Your task to perform on an android device: Clear all items from cart on amazon. Search for "dell xps" on amazon, select the first entry, add it to the cart, then select checkout. Image 0: 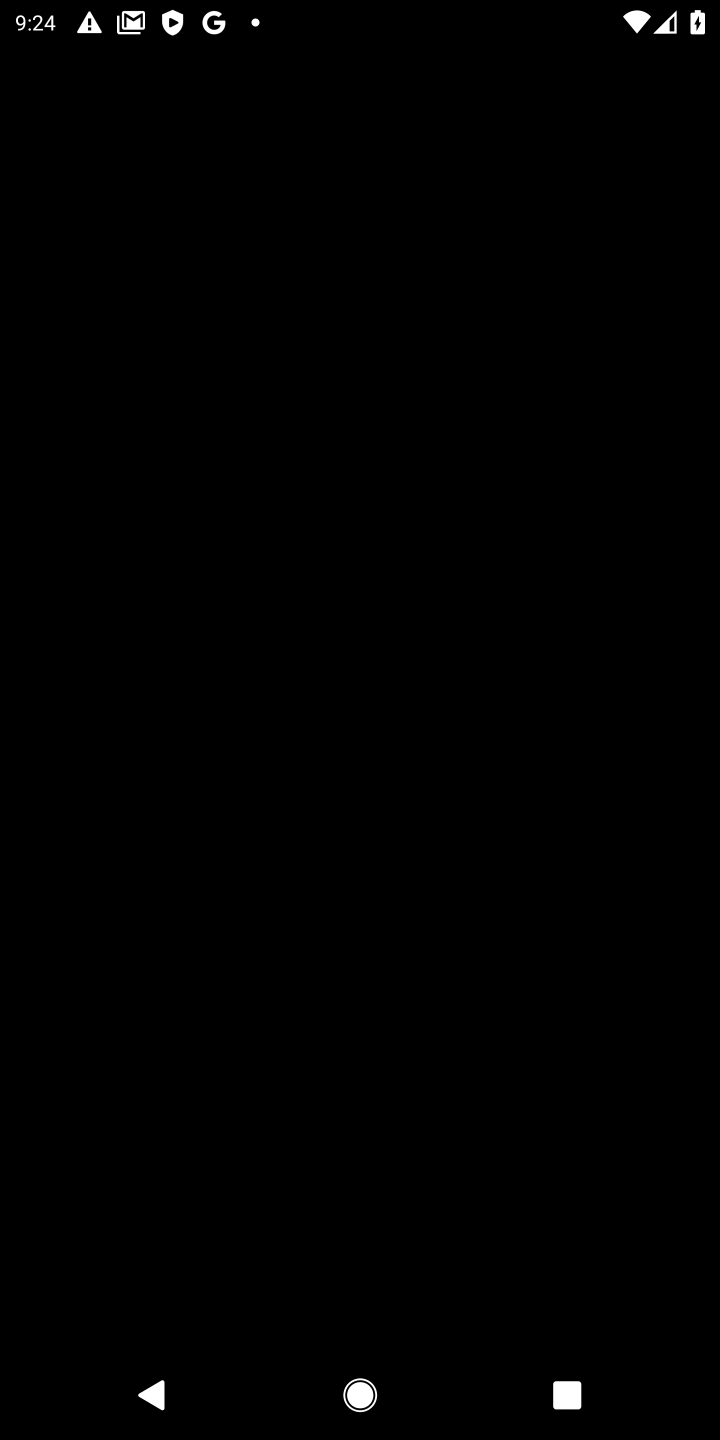
Step 0: press home button
Your task to perform on an android device: Clear all items from cart on amazon. Search for "dell xps" on amazon, select the first entry, add it to the cart, then select checkout. Image 1: 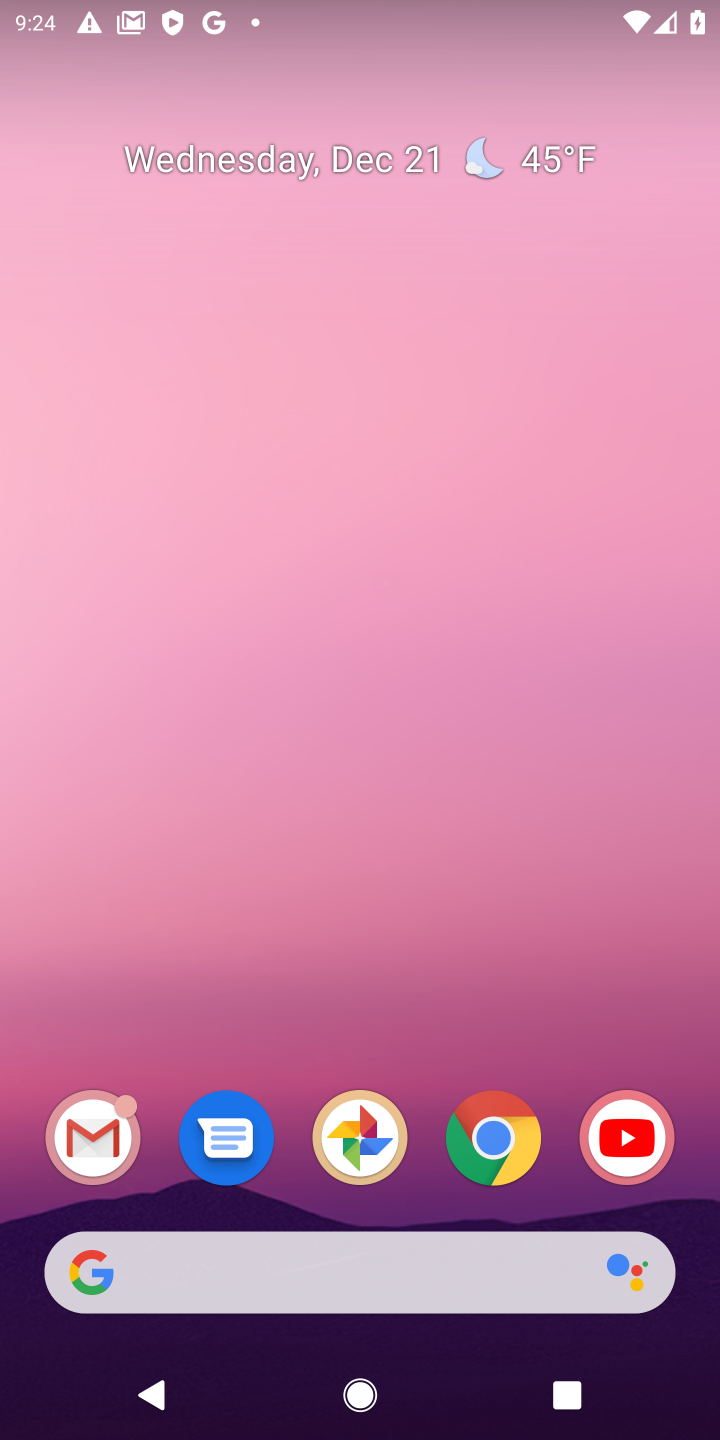
Step 1: click (490, 1136)
Your task to perform on an android device: Clear all items from cart on amazon. Search for "dell xps" on amazon, select the first entry, add it to the cart, then select checkout. Image 2: 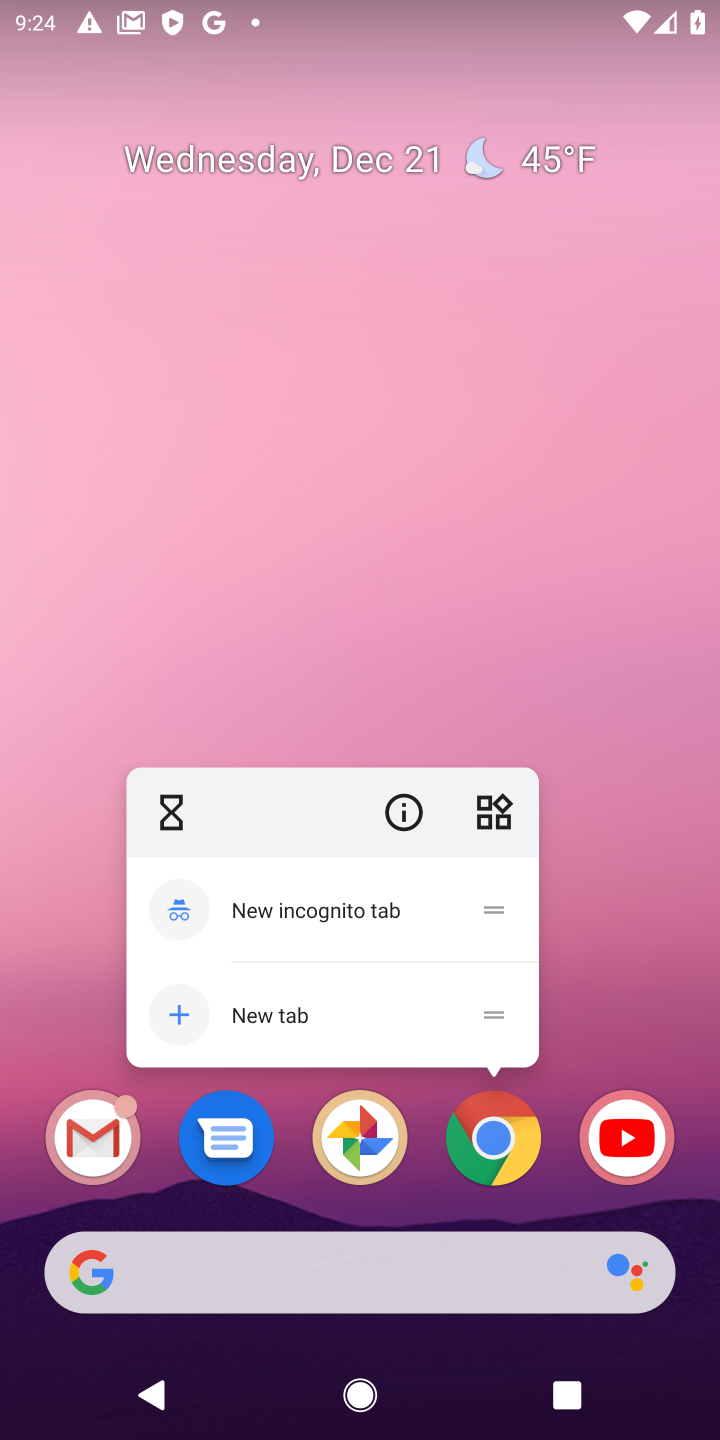
Step 2: click (490, 1136)
Your task to perform on an android device: Clear all items from cart on amazon. Search for "dell xps" on amazon, select the first entry, add it to the cart, then select checkout. Image 3: 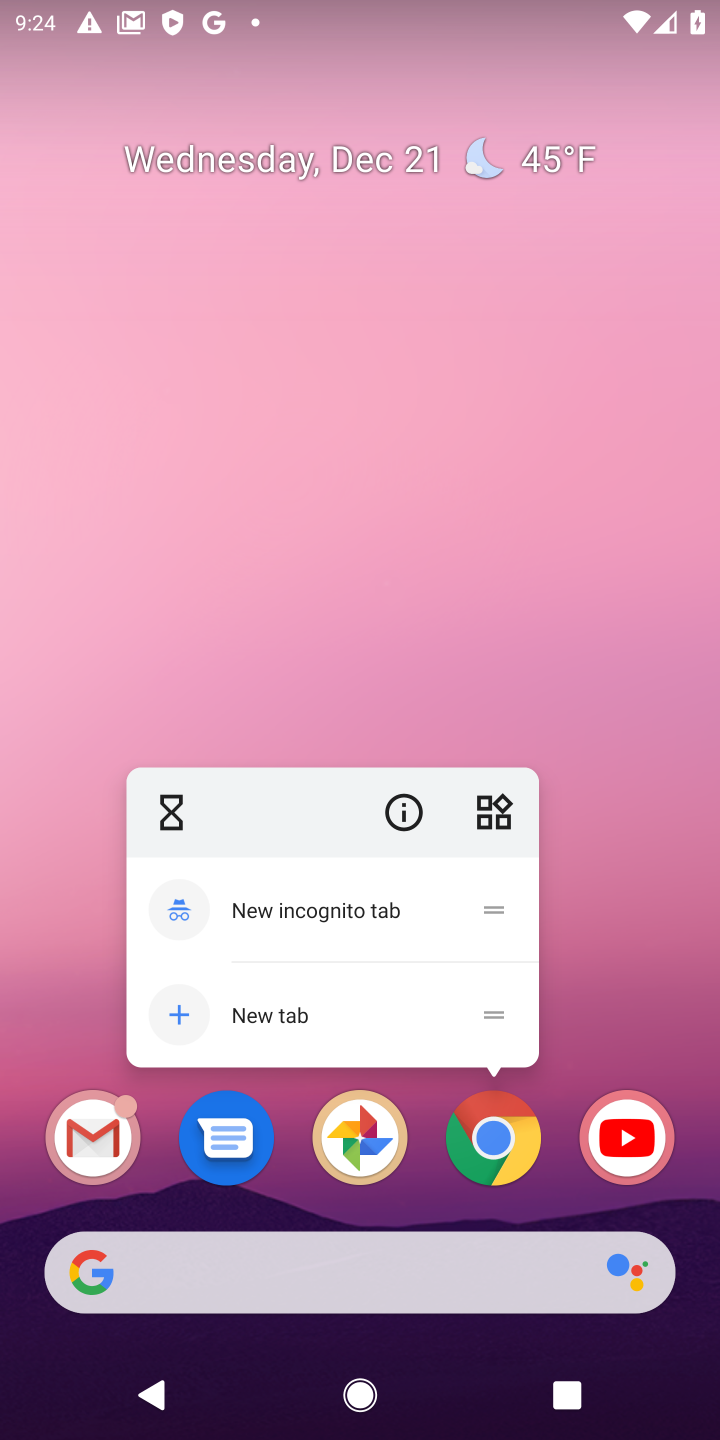
Step 3: click (490, 1136)
Your task to perform on an android device: Clear all items from cart on amazon. Search for "dell xps" on amazon, select the first entry, add it to the cart, then select checkout. Image 4: 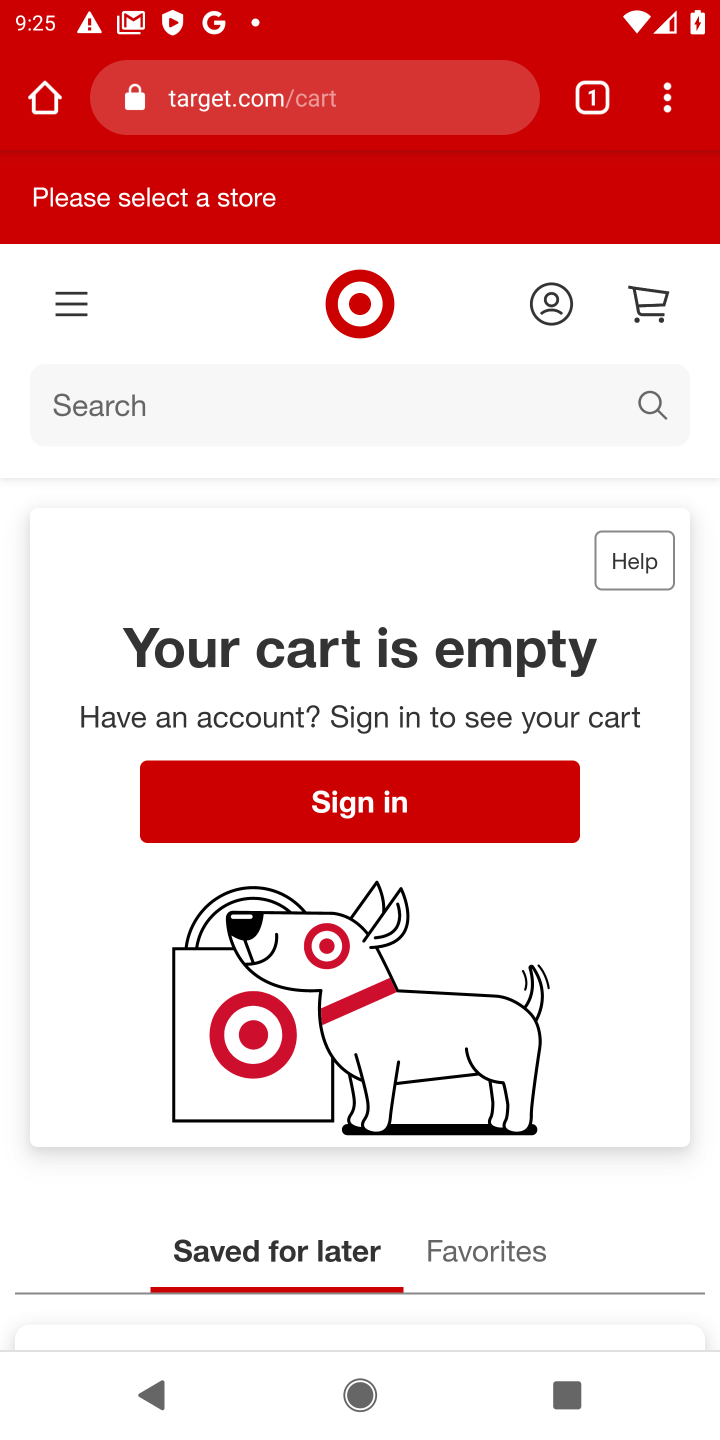
Step 4: click (203, 102)
Your task to perform on an android device: Clear all items from cart on amazon. Search for "dell xps" on amazon, select the first entry, add it to the cart, then select checkout. Image 5: 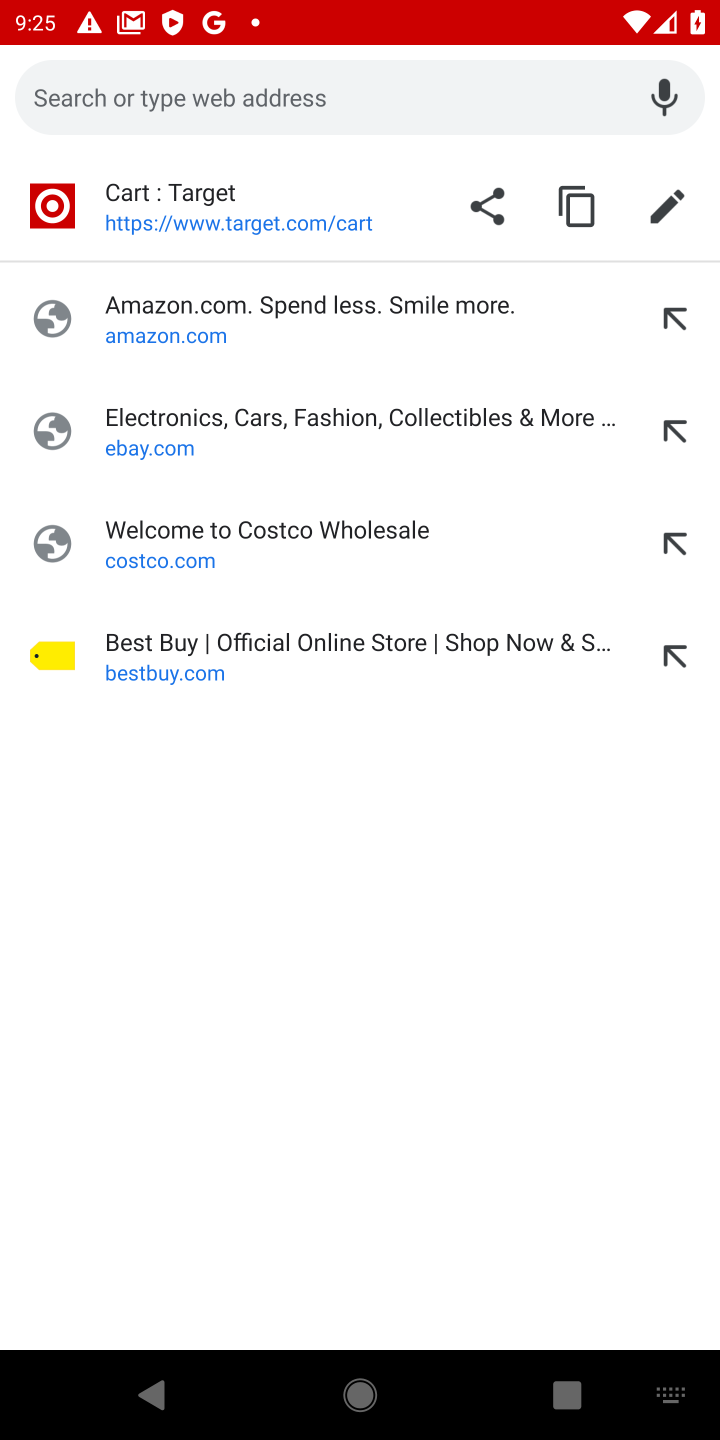
Step 5: click (141, 352)
Your task to perform on an android device: Clear all items from cart on amazon. Search for "dell xps" on amazon, select the first entry, add it to the cart, then select checkout. Image 6: 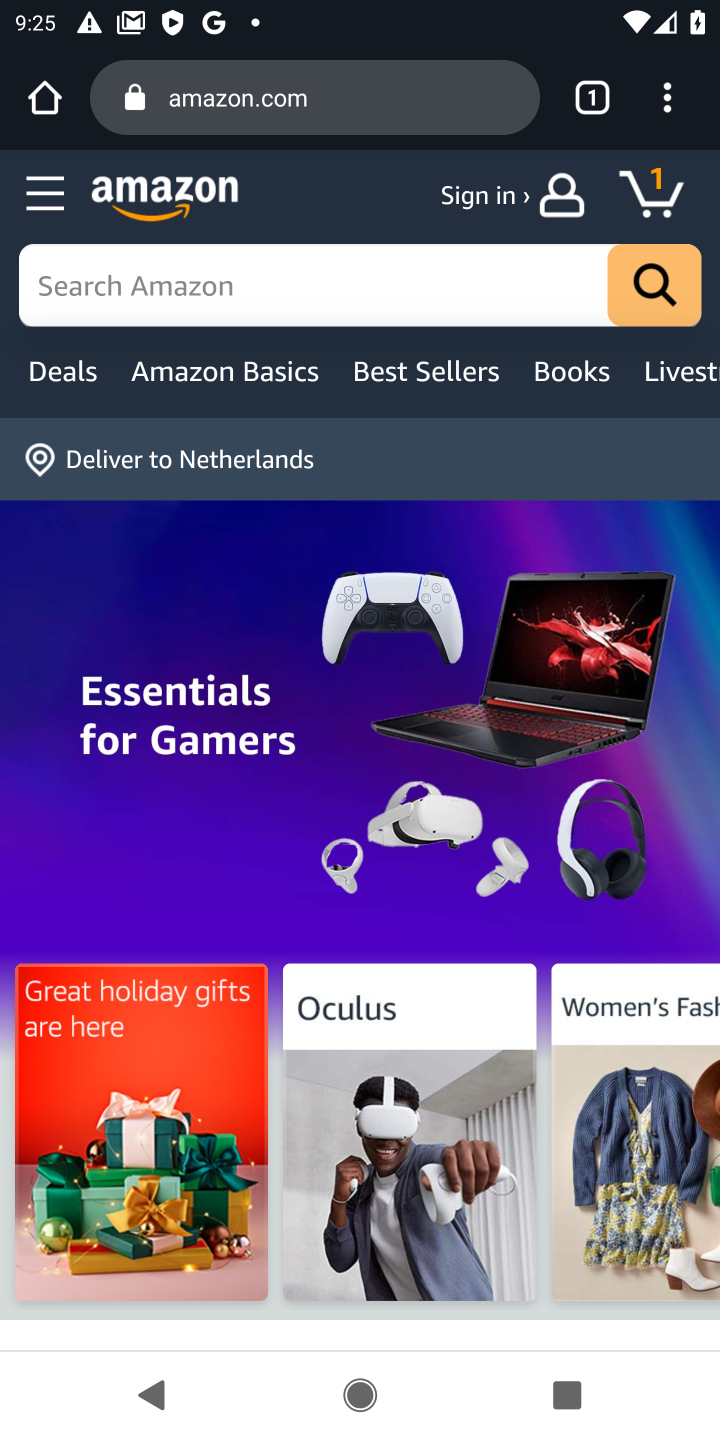
Step 6: click (650, 201)
Your task to perform on an android device: Clear all items from cart on amazon. Search for "dell xps" on amazon, select the first entry, add it to the cart, then select checkout. Image 7: 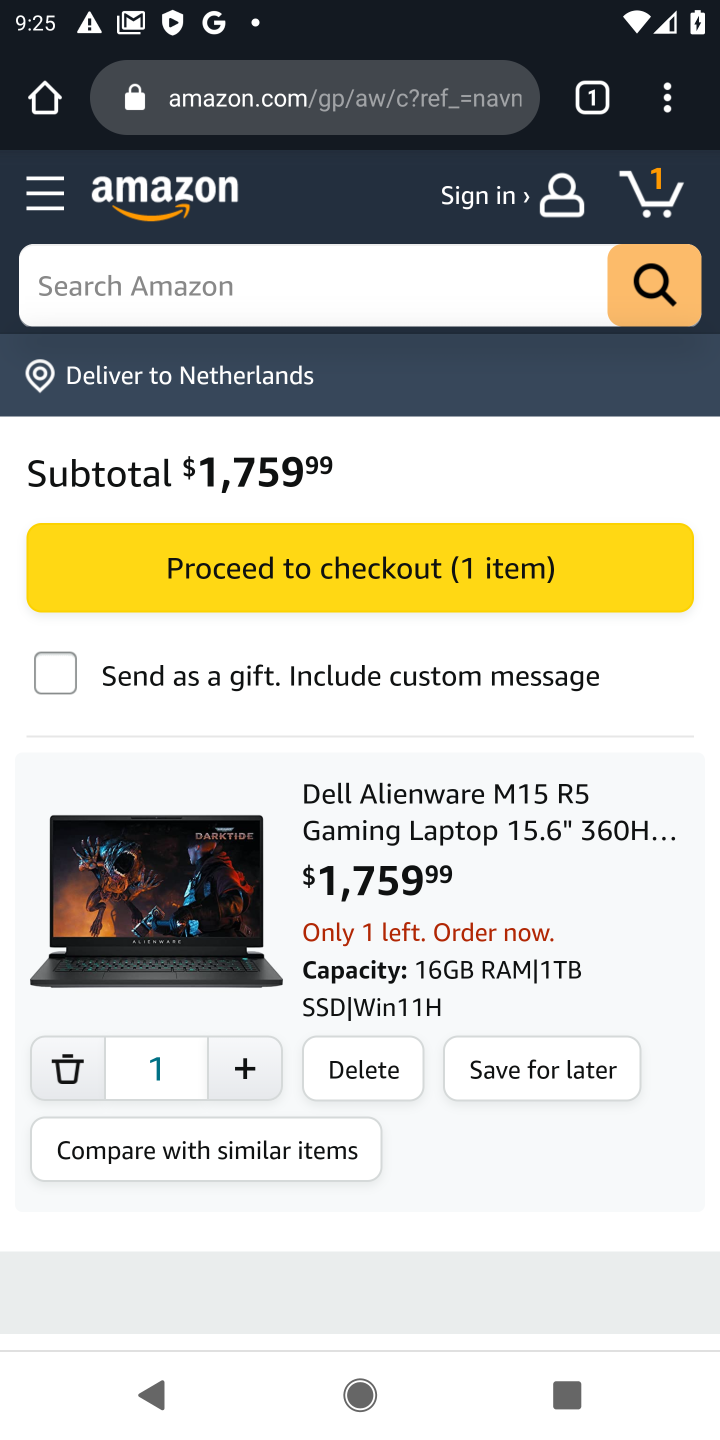
Step 7: click (366, 1084)
Your task to perform on an android device: Clear all items from cart on amazon. Search for "dell xps" on amazon, select the first entry, add it to the cart, then select checkout. Image 8: 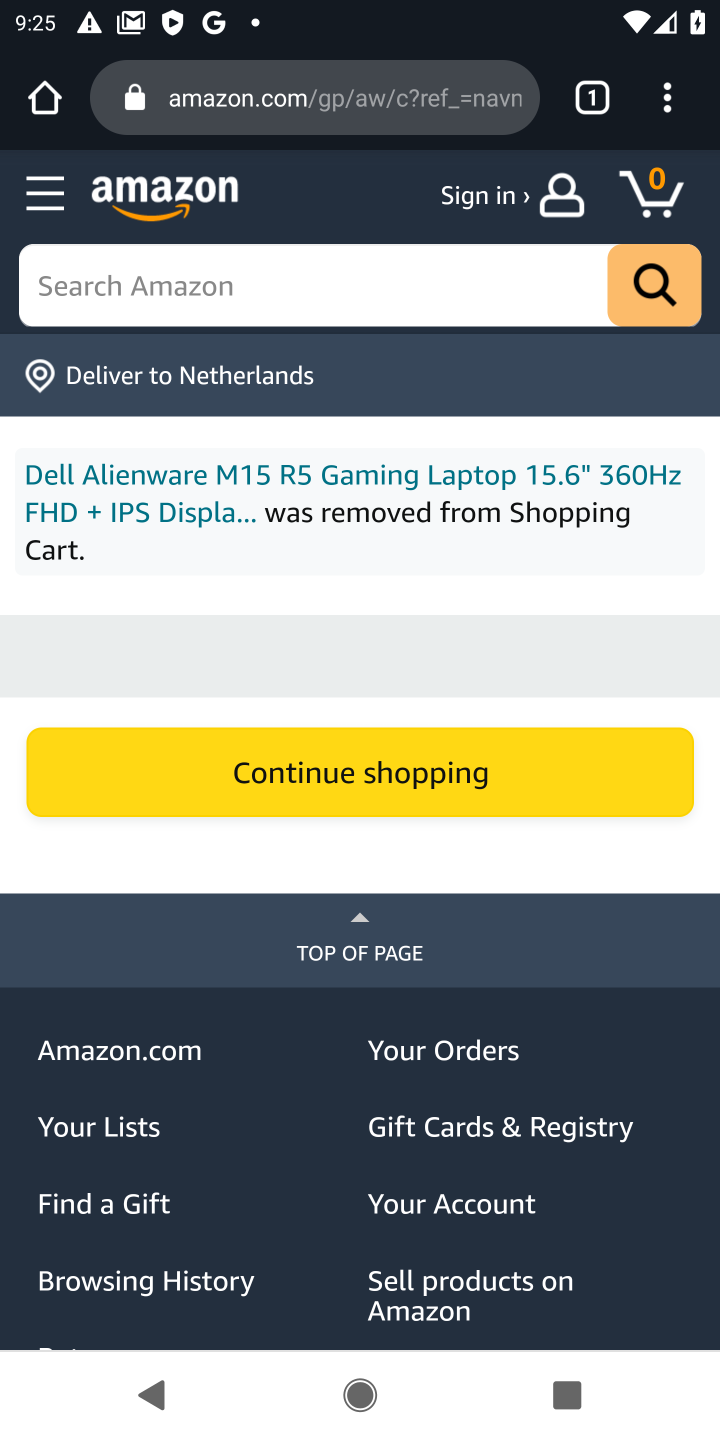
Step 8: click (201, 279)
Your task to perform on an android device: Clear all items from cart on amazon. Search for "dell xps" on amazon, select the first entry, add it to the cart, then select checkout. Image 9: 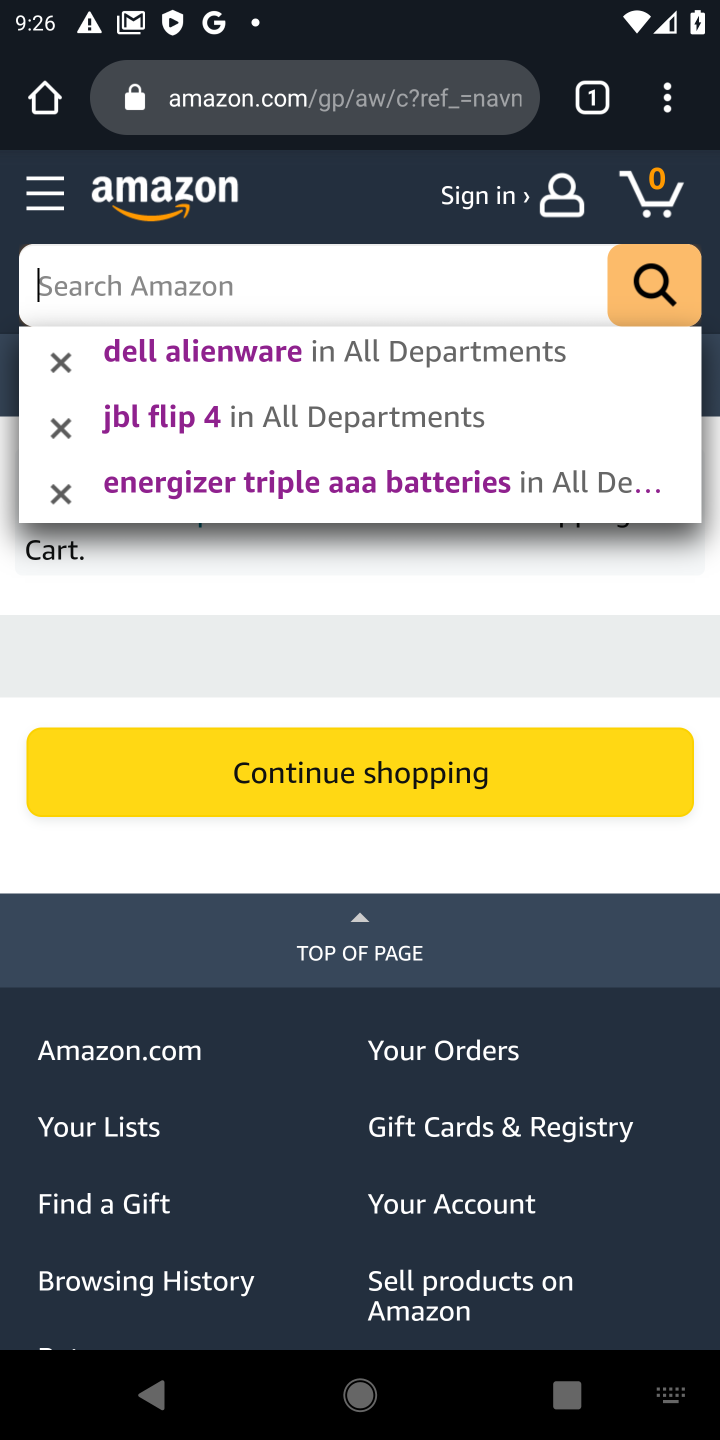
Step 9: type "dell xps"
Your task to perform on an android device: Clear all items from cart on amazon. Search for "dell xps" on amazon, select the first entry, add it to the cart, then select checkout. Image 10: 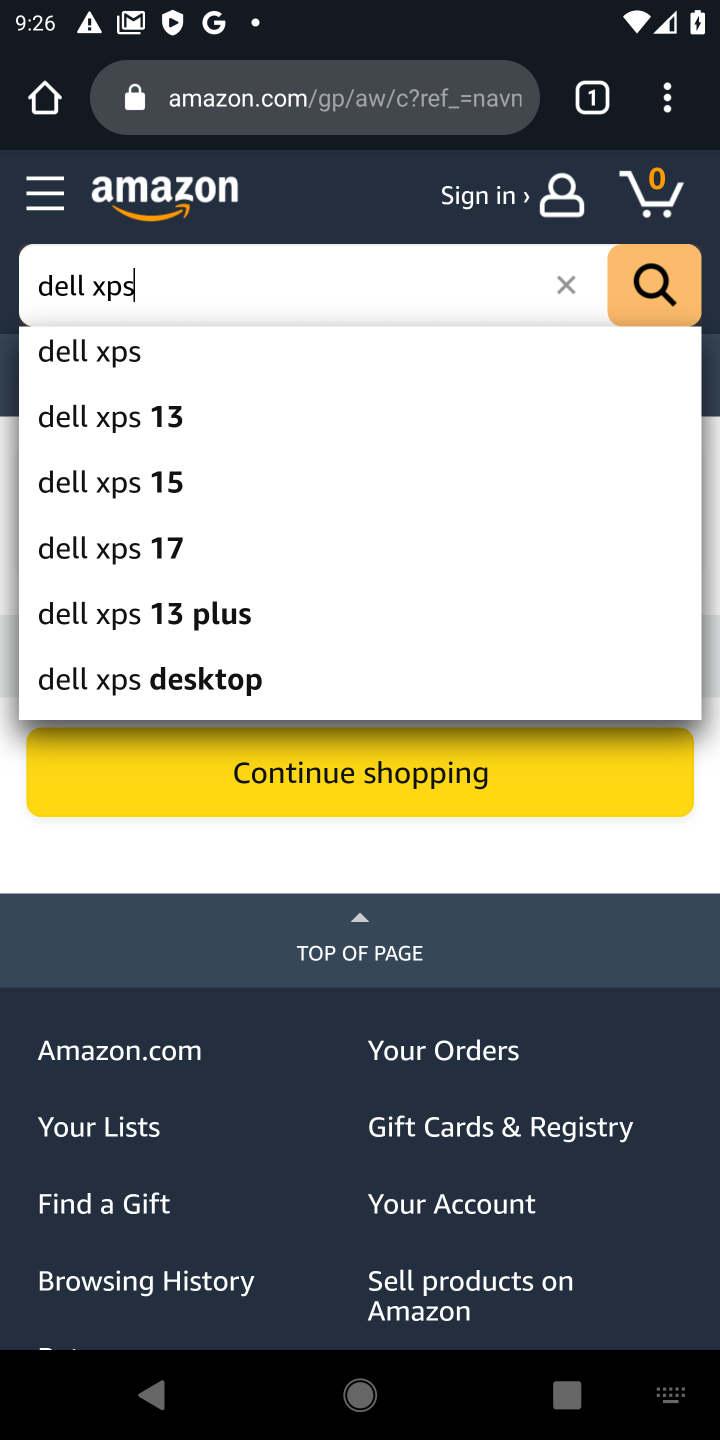
Step 10: click (76, 354)
Your task to perform on an android device: Clear all items from cart on amazon. Search for "dell xps" on amazon, select the first entry, add it to the cart, then select checkout. Image 11: 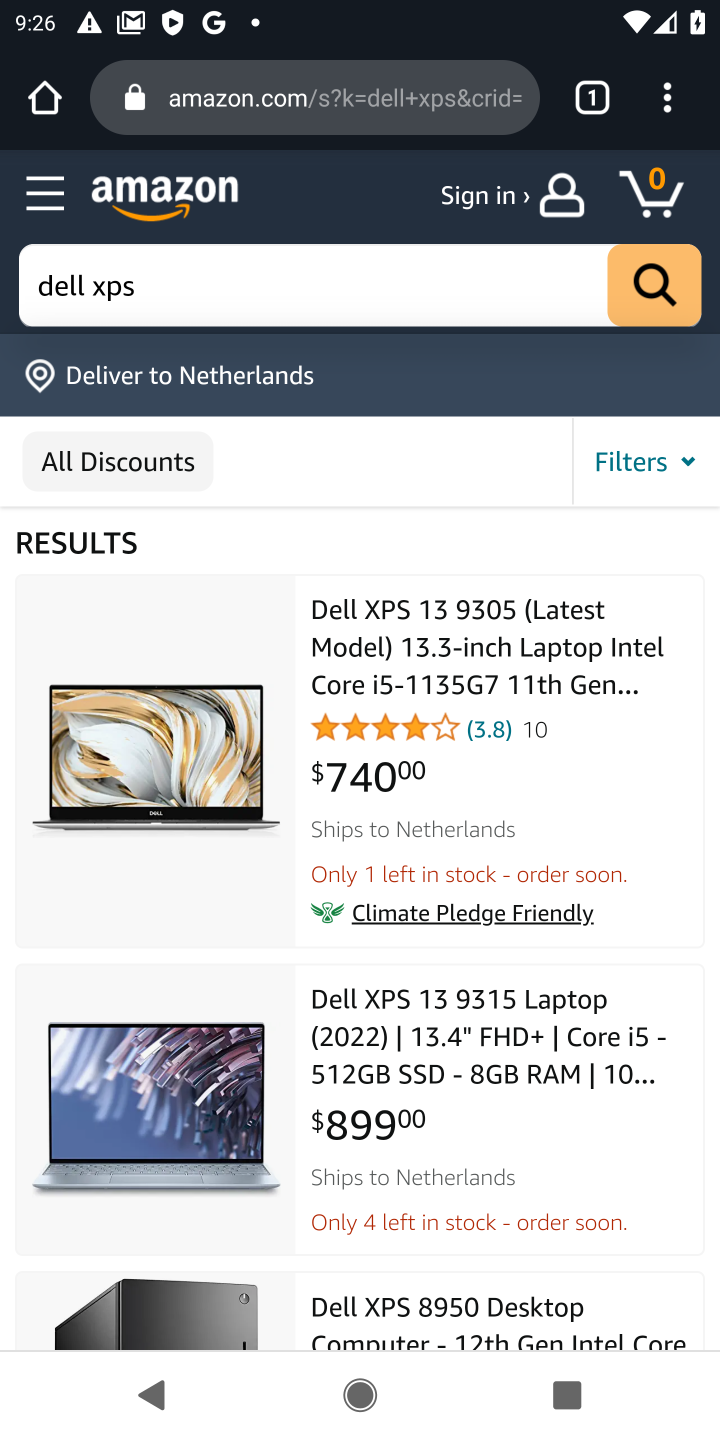
Step 11: click (421, 655)
Your task to perform on an android device: Clear all items from cart on amazon. Search for "dell xps" on amazon, select the first entry, add it to the cart, then select checkout. Image 12: 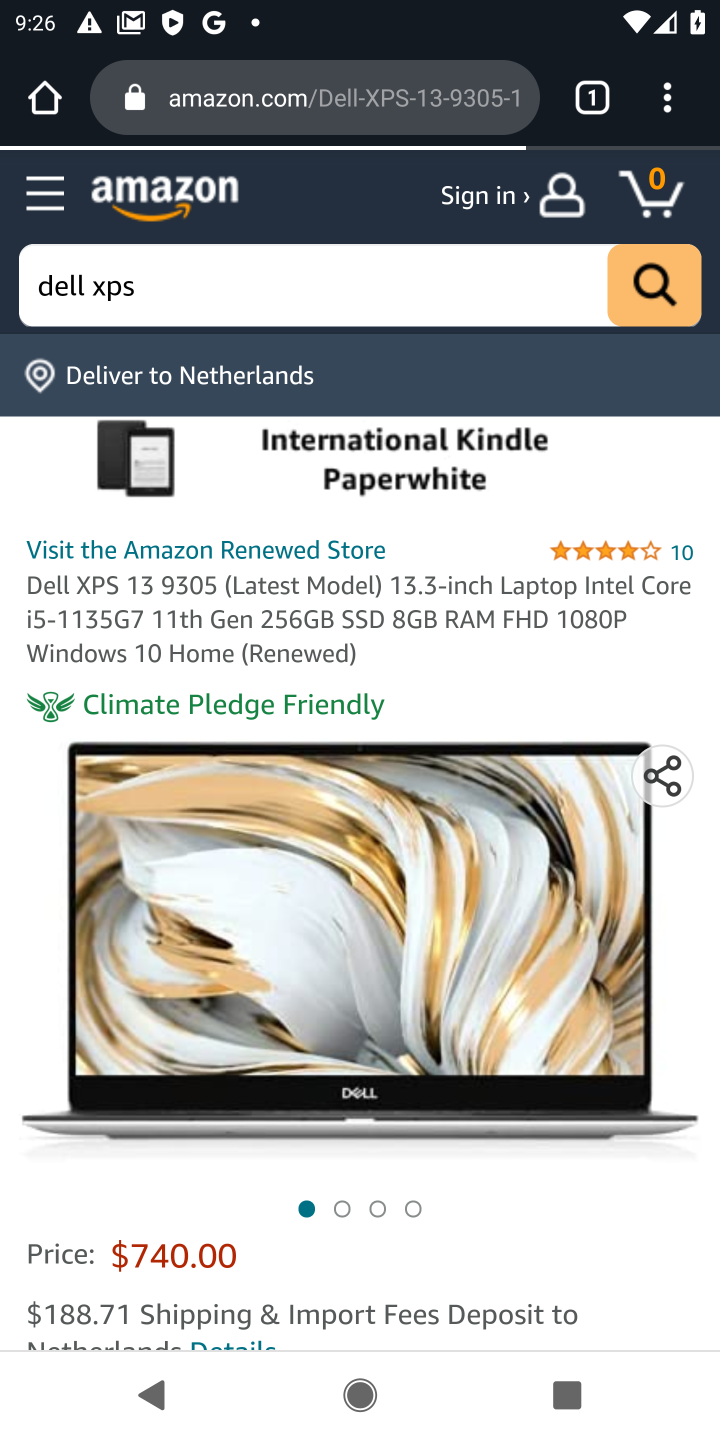
Step 12: drag from (408, 917) to (352, 456)
Your task to perform on an android device: Clear all items from cart on amazon. Search for "dell xps" on amazon, select the first entry, add it to the cart, then select checkout. Image 13: 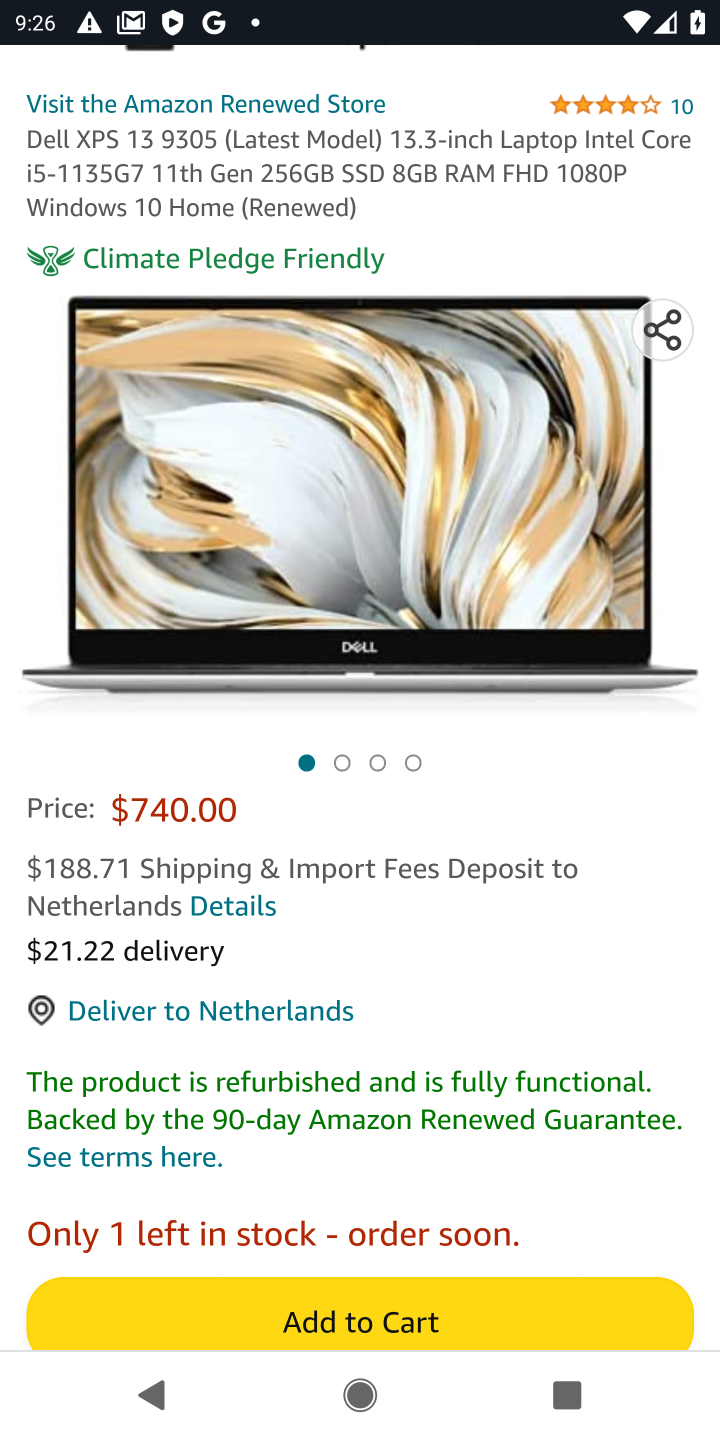
Step 13: drag from (387, 702) to (374, 522)
Your task to perform on an android device: Clear all items from cart on amazon. Search for "dell xps" on amazon, select the first entry, add it to the cart, then select checkout. Image 14: 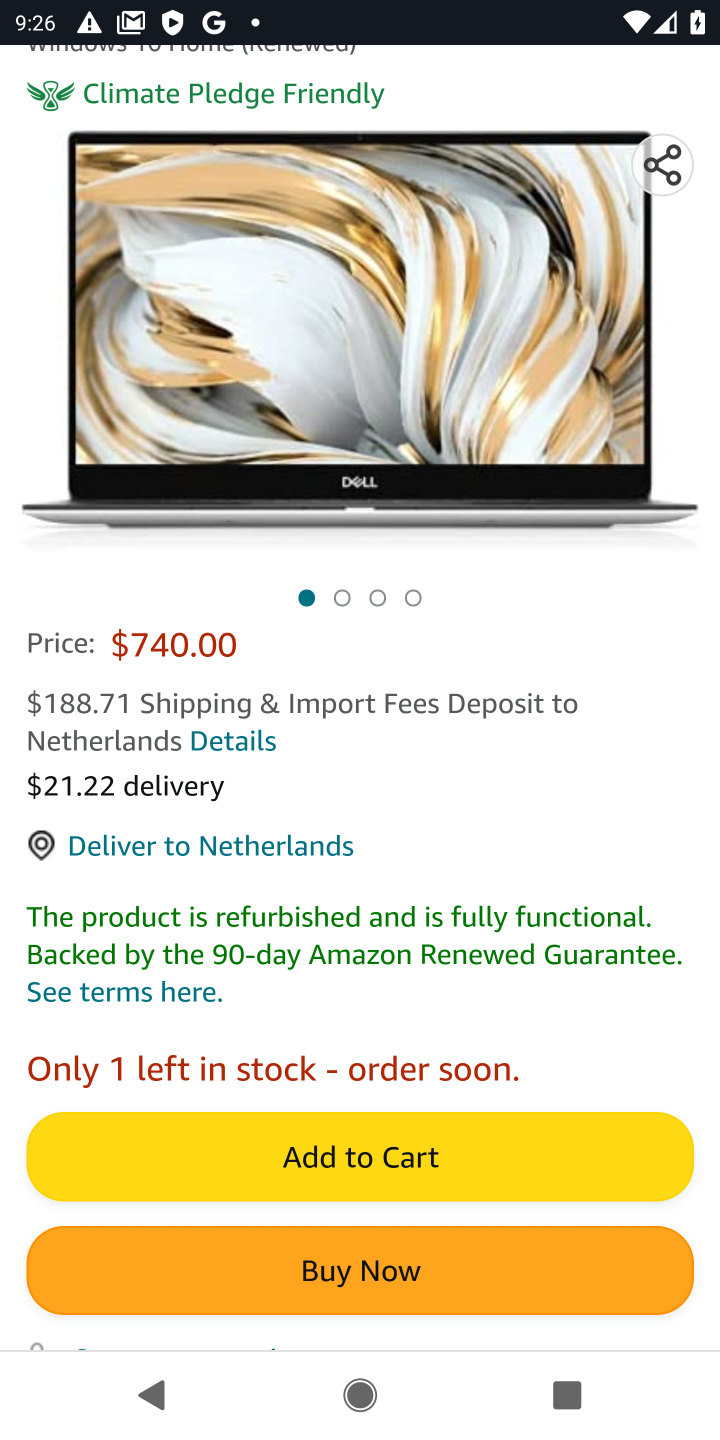
Step 14: click (336, 1170)
Your task to perform on an android device: Clear all items from cart on amazon. Search for "dell xps" on amazon, select the first entry, add it to the cart, then select checkout. Image 15: 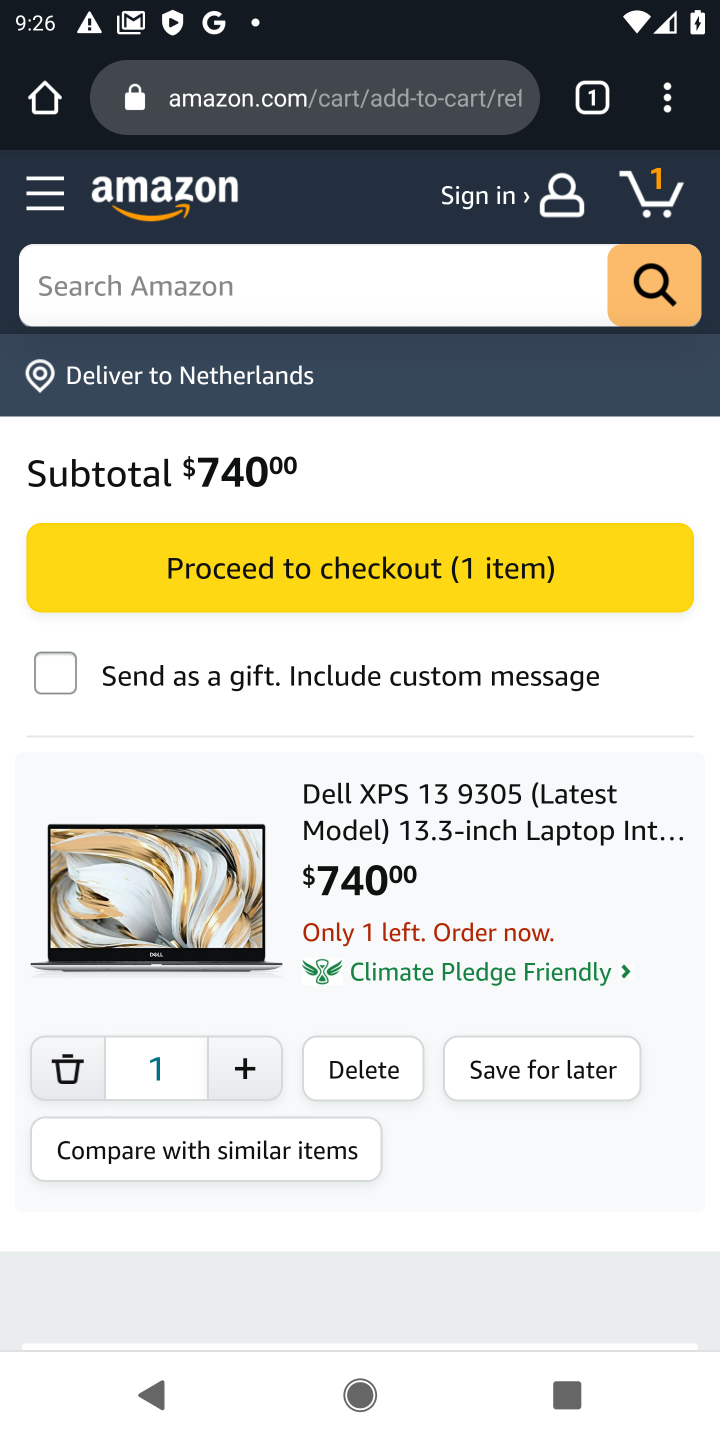
Step 15: click (314, 571)
Your task to perform on an android device: Clear all items from cart on amazon. Search for "dell xps" on amazon, select the first entry, add it to the cart, then select checkout. Image 16: 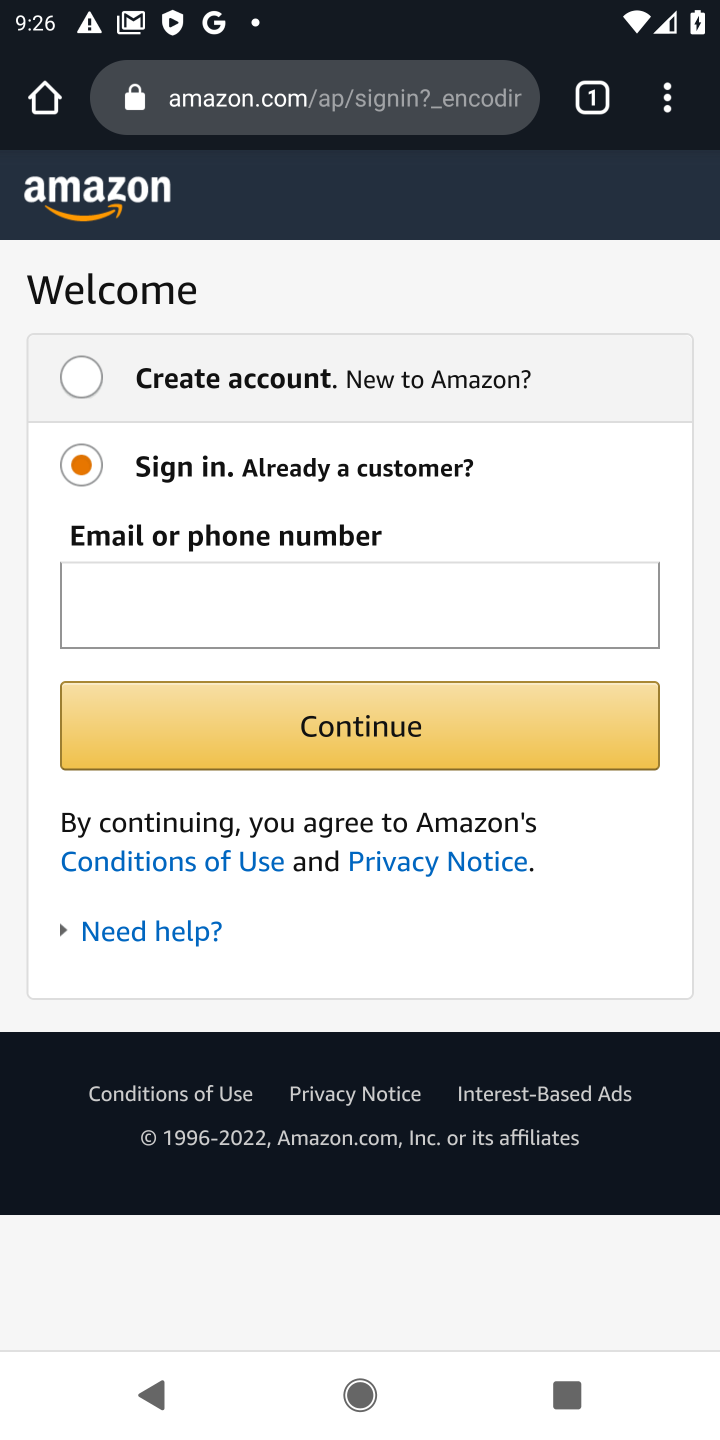
Step 16: task complete